Your task to perform on an android device: What time is it in Sydney? Image 0: 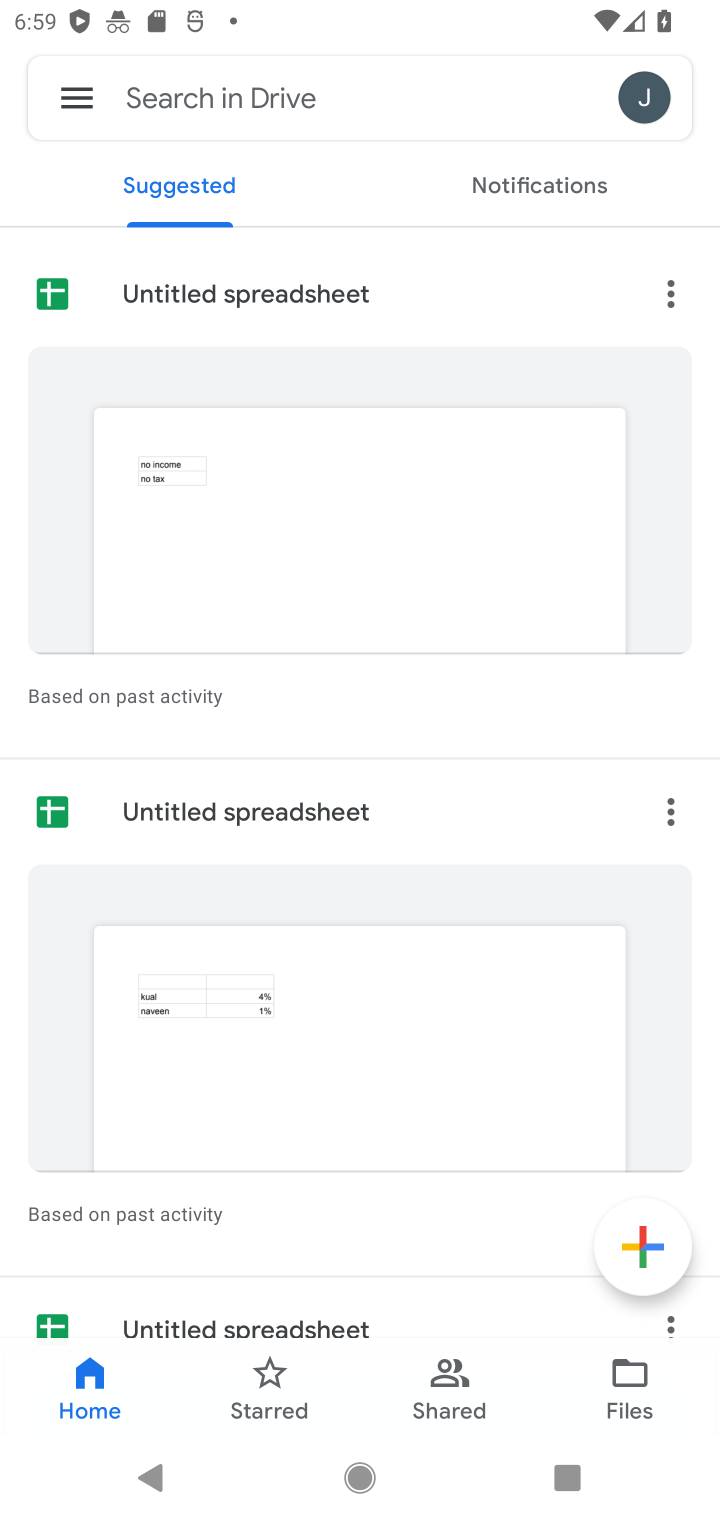
Step 0: press home button
Your task to perform on an android device: What time is it in Sydney? Image 1: 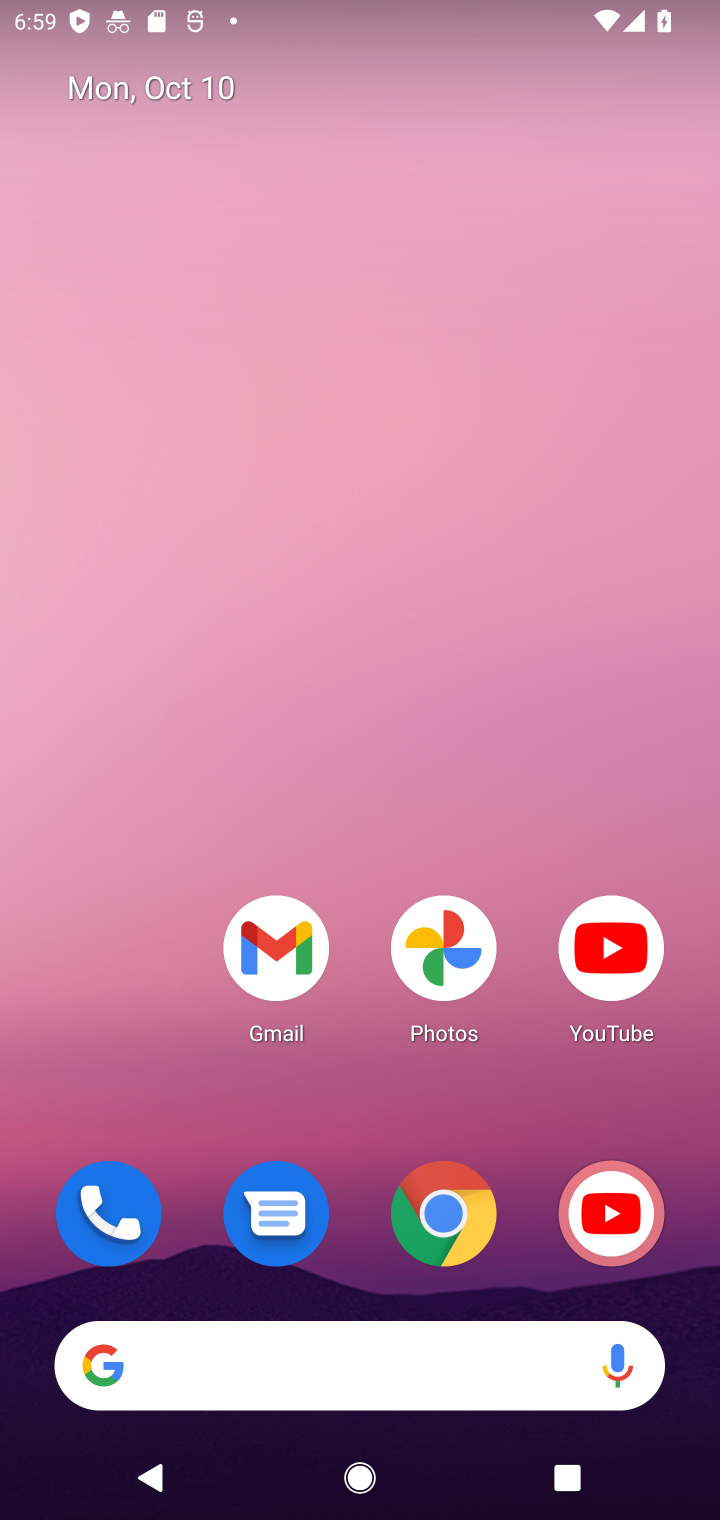
Step 1: click (308, 1360)
Your task to perform on an android device: What time is it in Sydney? Image 2: 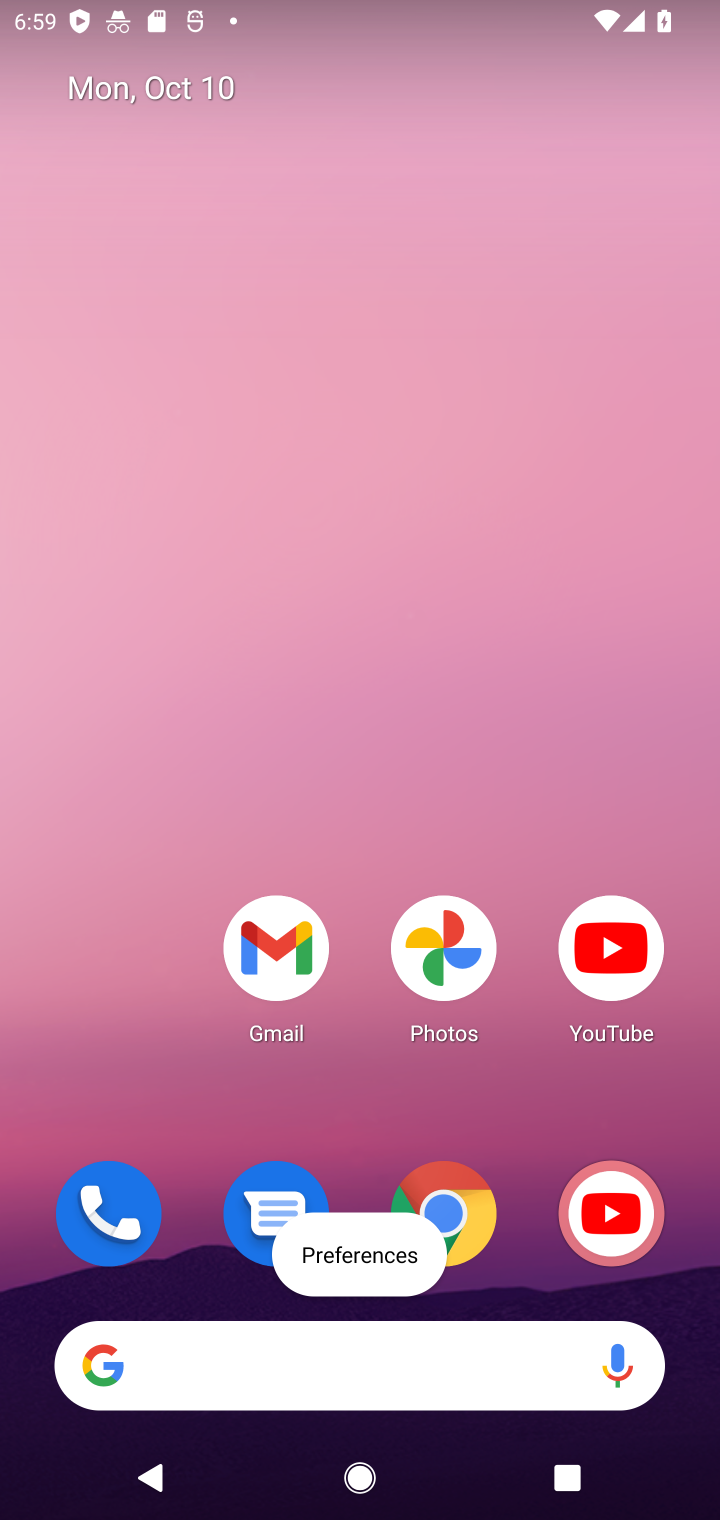
Step 2: click (336, 1367)
Your task to perform on an android device: What time is it in Sydney? Image 3: 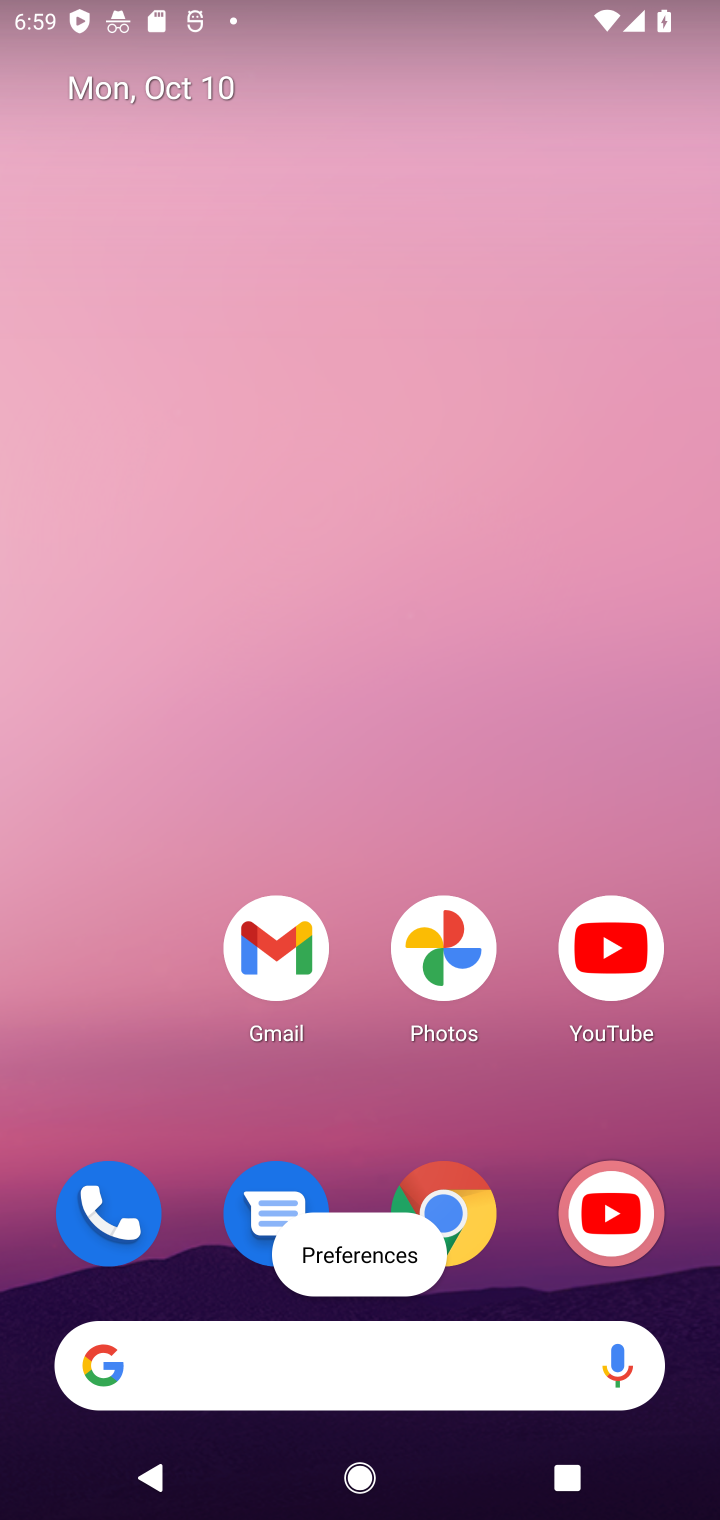
Step 3: type "What time is it in Sydney"
Your task to perform on an android device: What time is it in Sydney? Image 4: 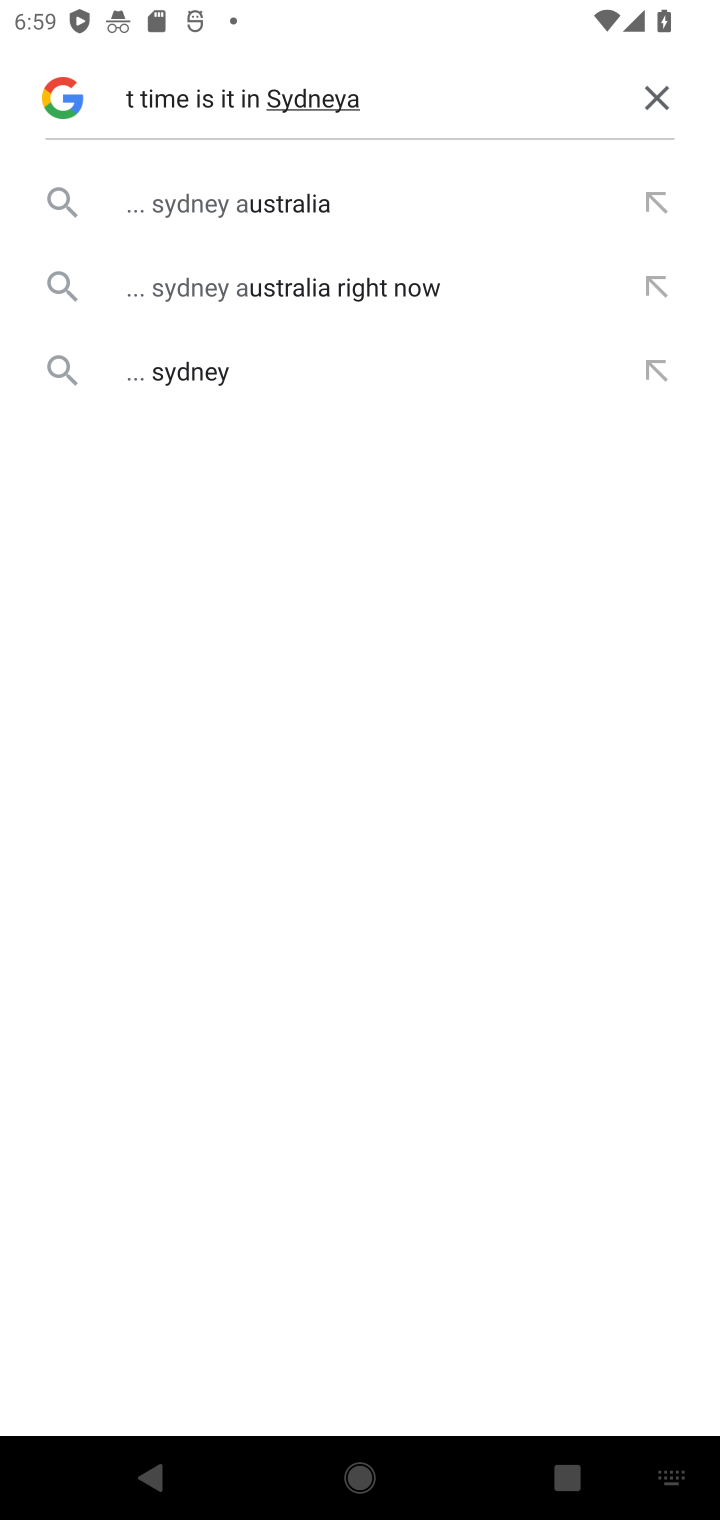
Step 4: click (223, 394)
Your task to perform on an android device: What time is it in Sydney? Image 5: 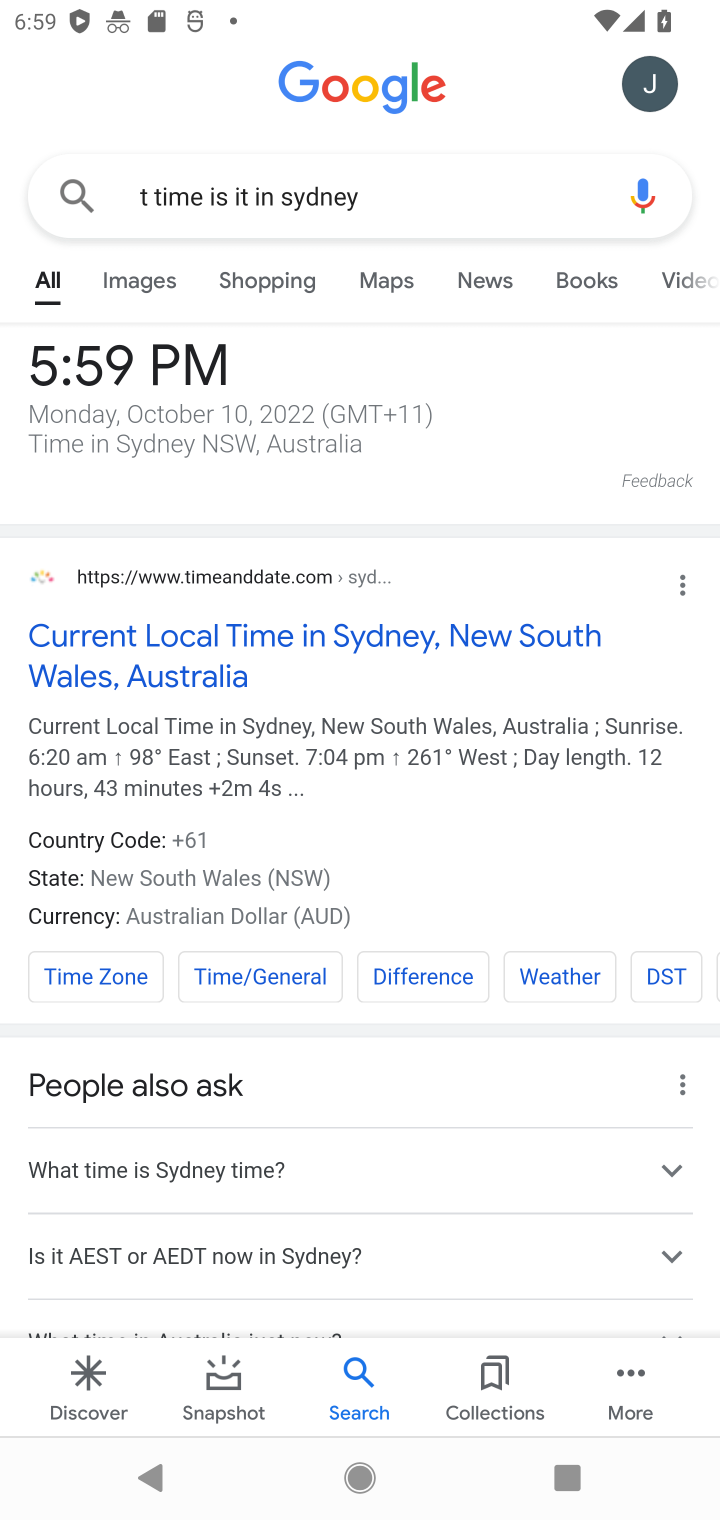
Step 5: task complete